Your task to perform on an android device: What's on my calendar tomorrow? Image 0: 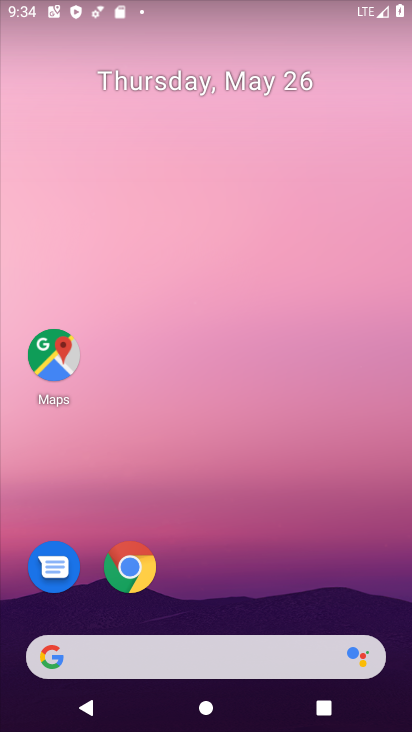
Step 0: drag from (158, 596) to (244, 103)
Your task to perform on an android device: What's on my calendar tomorrow? Image 1: 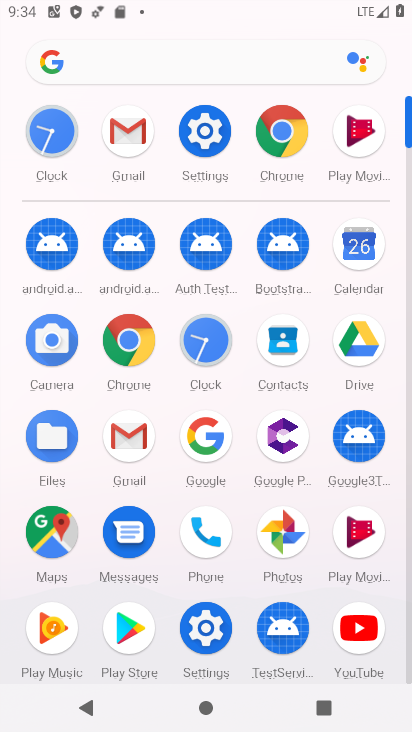
Step 1: click (360, 263)
Your task to perform on an android device: What's on my calendar tomorrow? Image 2: 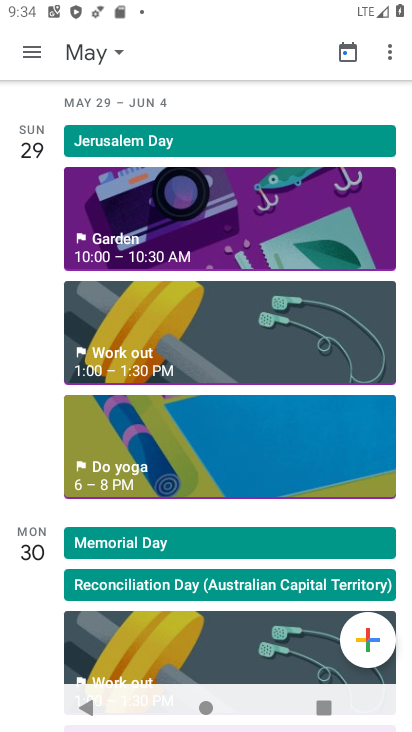
Step 2: task complete